Your task to perform on an android device: empty trash in google photos Image 0: 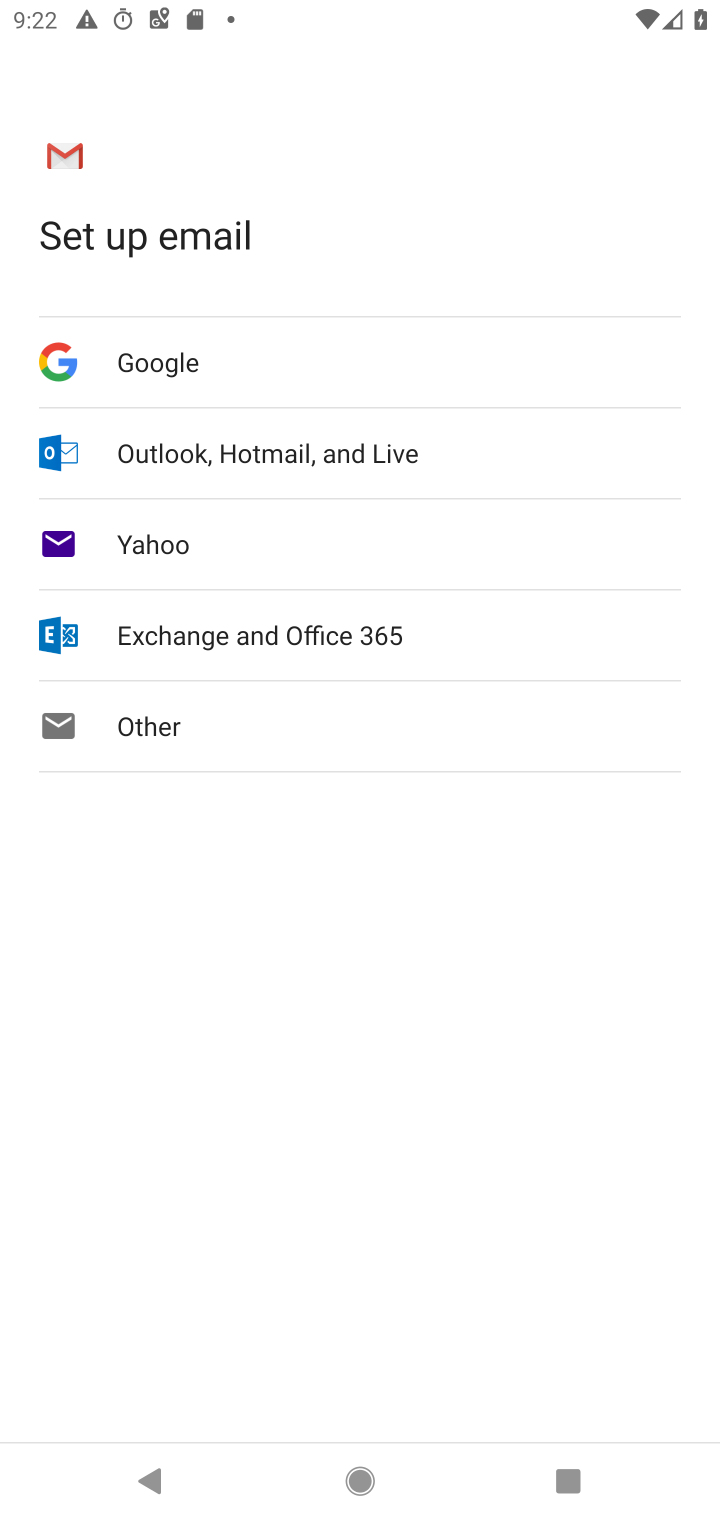
Step 0: press home button
Your task to perform on an android device: empty trash in google photos Image 1: 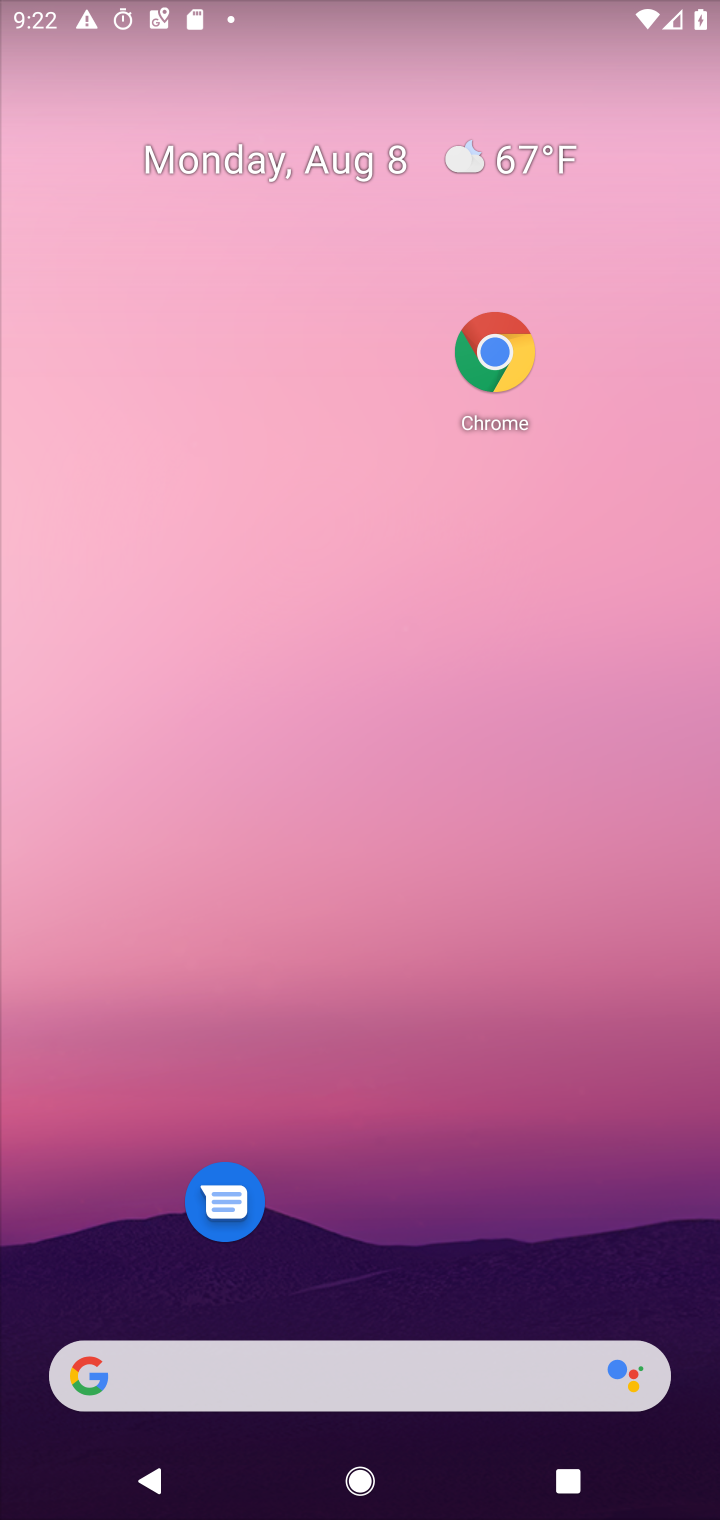
Step 1: drag from (359, 1210) to (392, 284)
Your task to perform on an android device: empty trash in google photos Image 2: 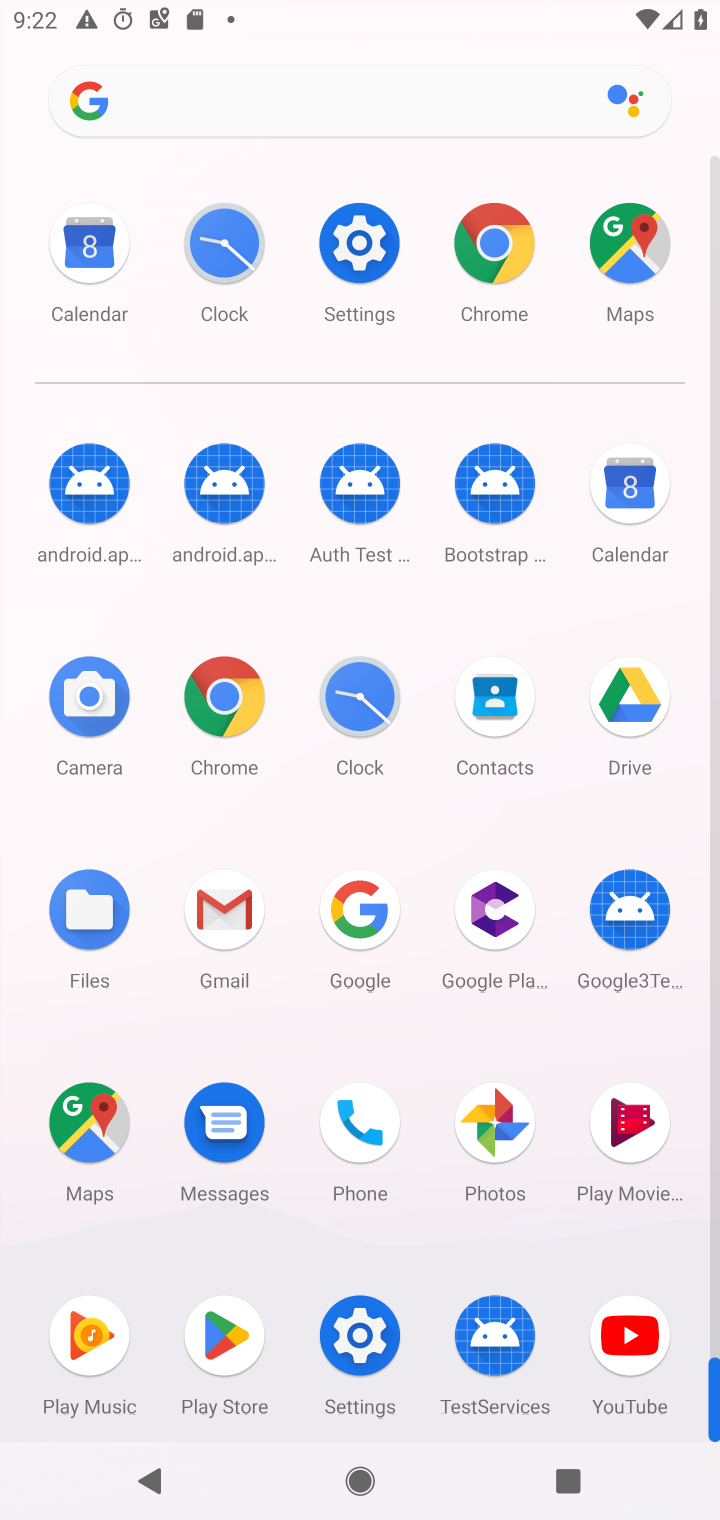
Step 2: click (498, 1141)
Your task to perform on an android device: empty trash in google photos Image 3: 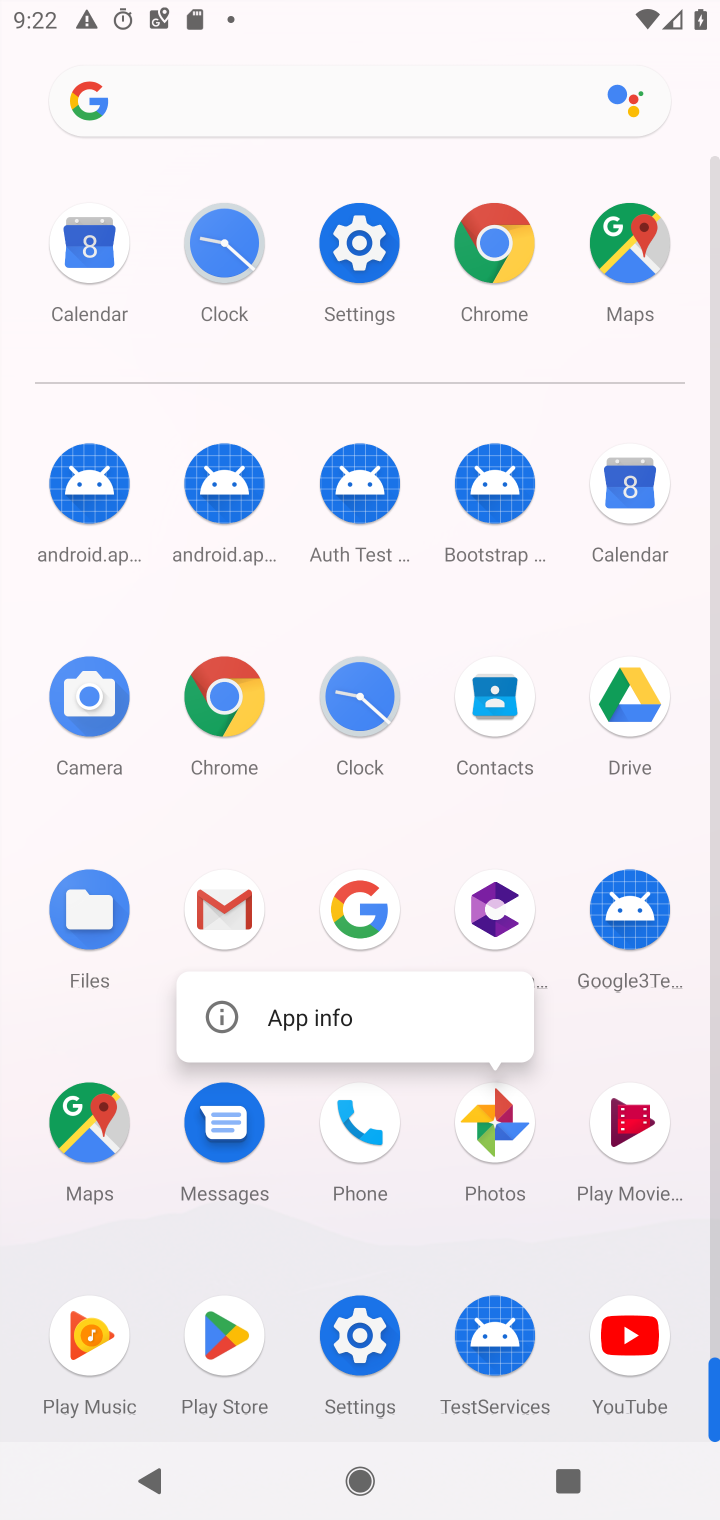
Step 3: click (501, 1135)
Your task to perform on an android device: empty trash in google photos Image 4: 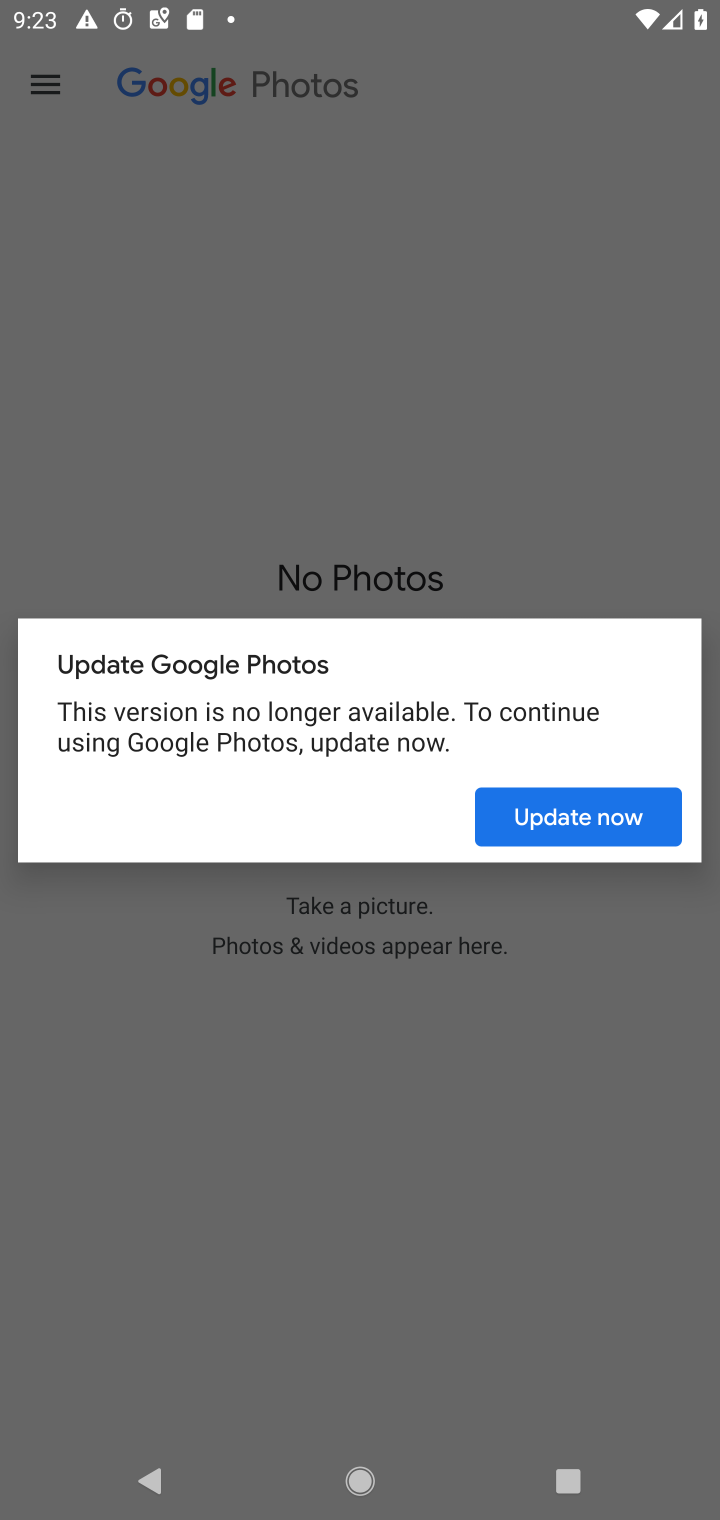
Step 4: task complete